Your task to perform on an android device: Is it going to rain this weekend? Image 0: 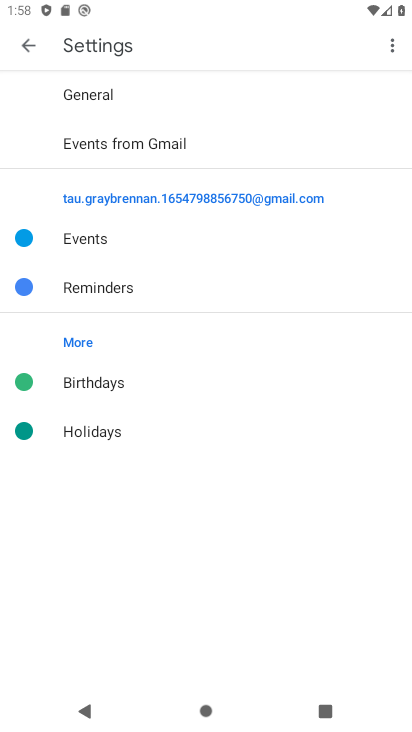
Step 0: press home button
Your task to perform on an android device: Is it going to rain this weekend? Image 1: 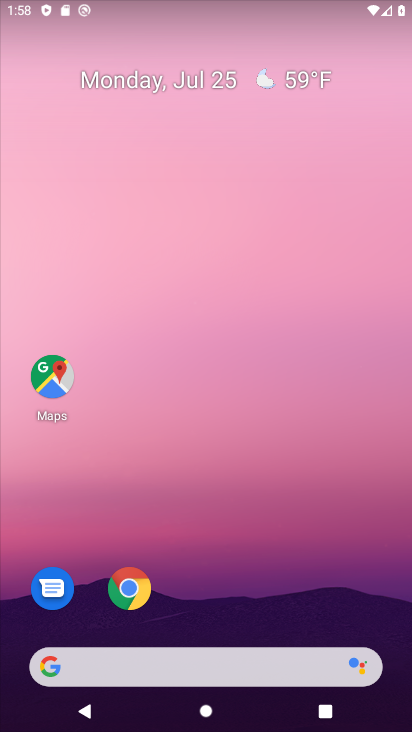
Step 1: click (314, 71)
Your task to perform on an android device: Is it going to rain this weekend? Image 2: 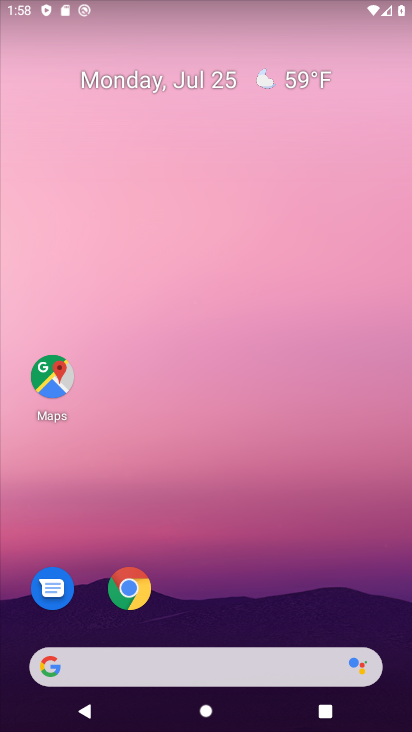
Step 2: drag from (6, 281) to (411, 298)
Your task to perform on an android device: Is it going to rain this weekend? Image 3: 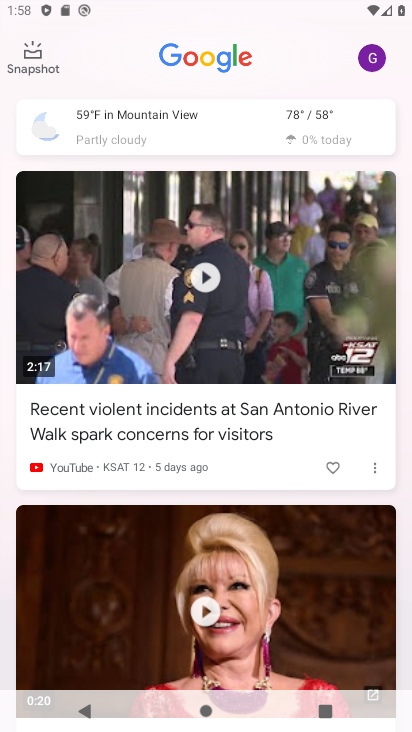
Step 3: click (330, 119)
Your task to perform on an android device: Is it going to rain this weekend? Image 4: 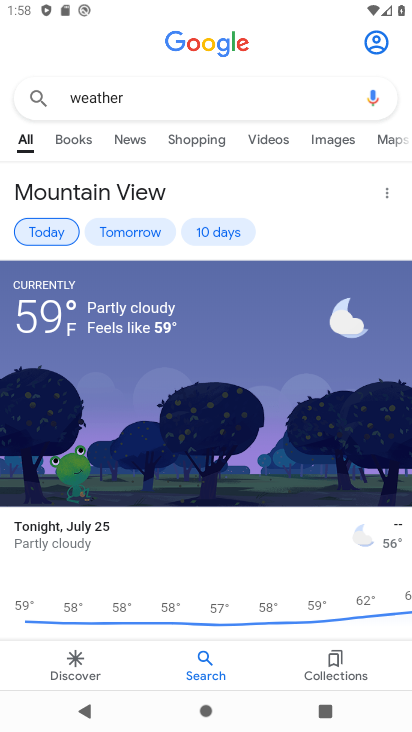
Step 4: click (220, 232)
Your task to perform on an android device: Is it going to rain this weekend? Image 5: 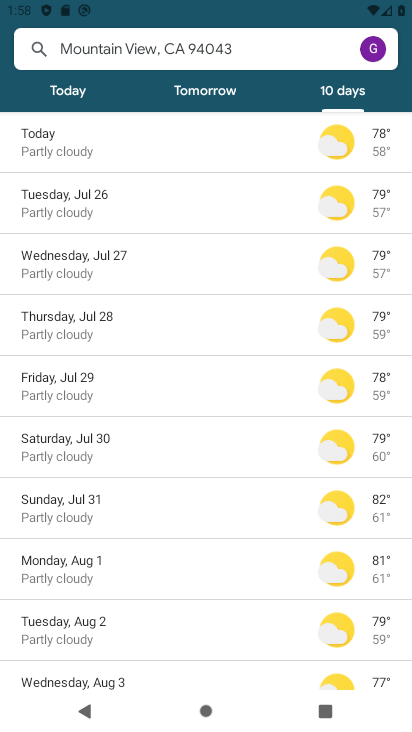
Step 5: click (189, 451)
Your task to perform on an android device: Is it going to rain this weekend? Image 6: 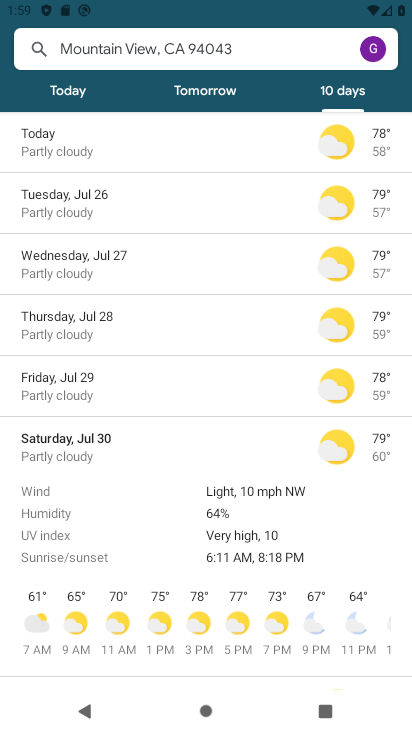
Step 6: task complete